Your task to perform on an android device: choose inbox layout in the gmail app Image 0: 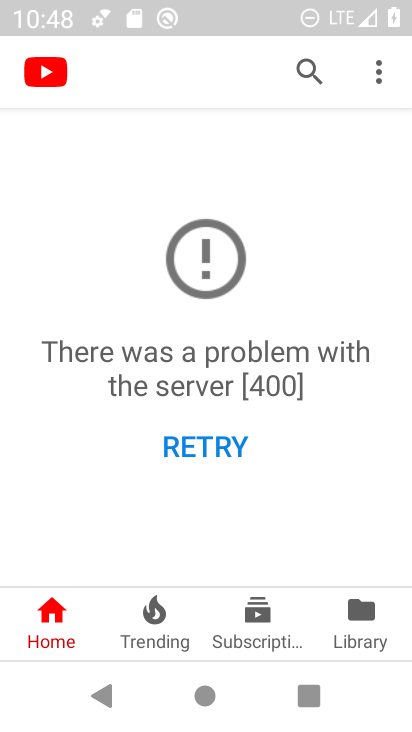
Step 0: press home button
Your task to perform on an android device: choose inbox layout in the gmail app Image 1: 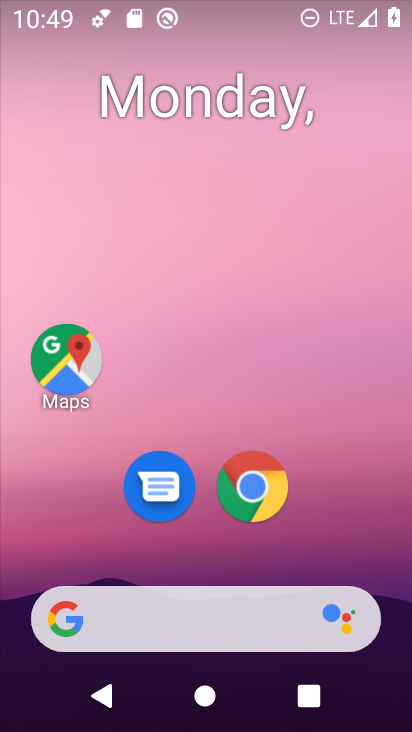
Step 1: drag from (20, 631) to (180, 228)
Your task to perform on an android device: choose inbox layout in the gmail app Image 2: 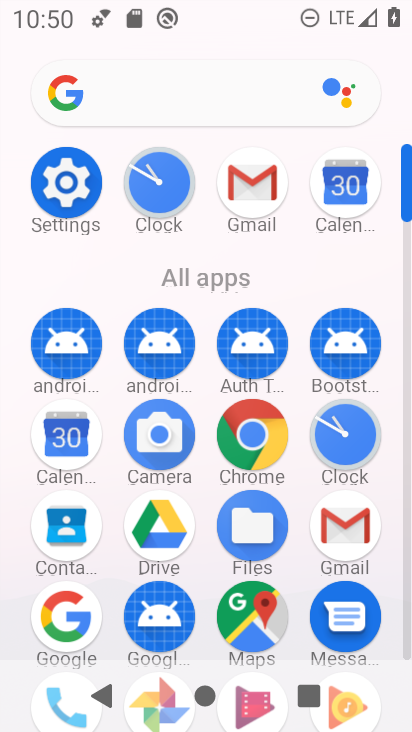
Step 2: click (237, 178)
Your task to perform on an android device: choose inbox layout in the gmail app Image 3: 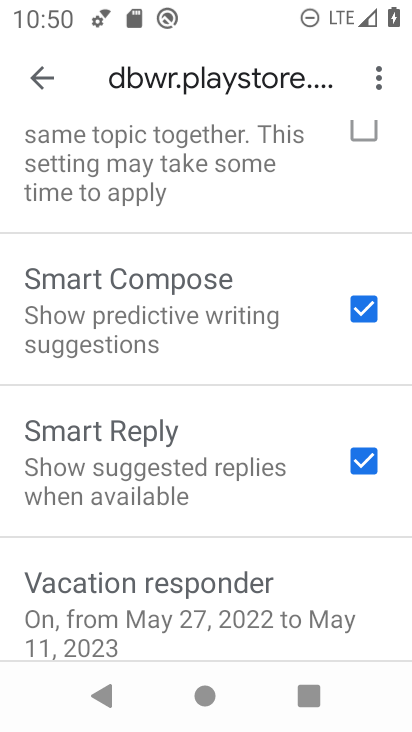
Step 3: task complete